Your task to perform on an android device: Do I have any events tomorrow? Image 0: 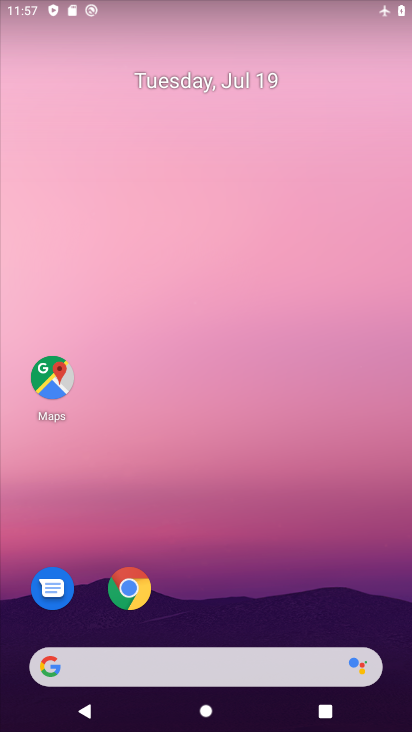
Step 0: drag from (215, 563) to (158, 262)
Your task to perform on an android device: Do I have any events tomorrow? Image 1: 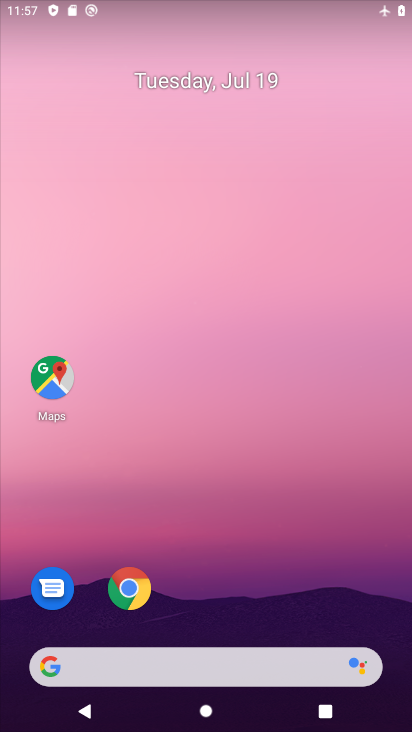
Step 1: drag from (211, 584) to (206, 230)
Your task to perform on an android device: Do I have any events tomorrow? Image 2: 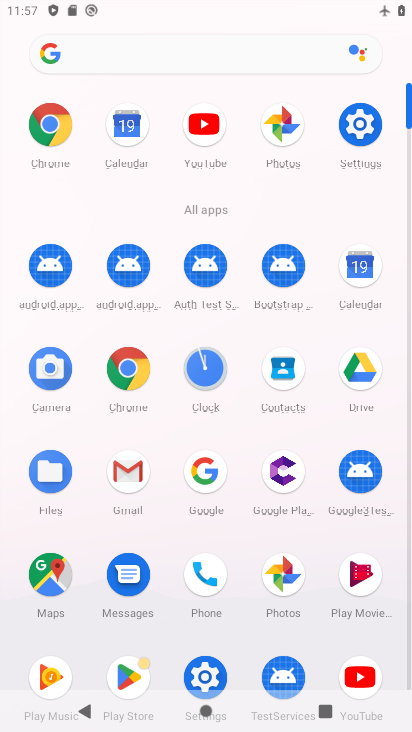
Step 2: click (351, 266)
Your task to perform on an android device: Do I have any events tomorrow? Image 3: 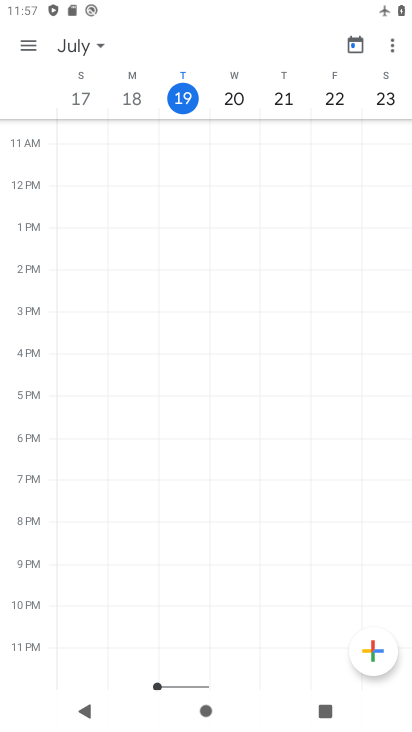
Step 3: click (287, 91)
Your task to perform on an android device: Do I have any events tomorrow? Image 4: 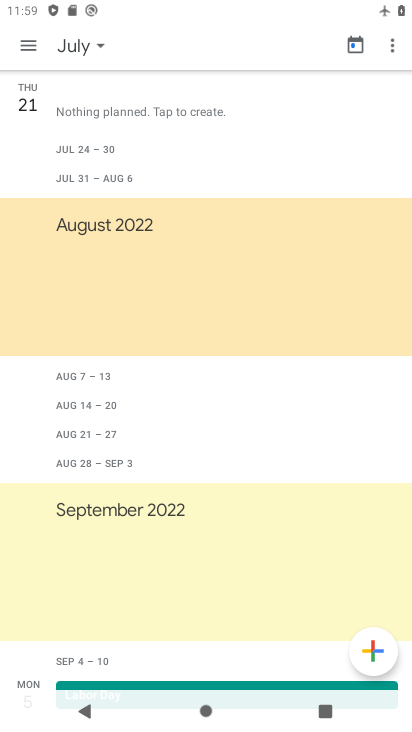
Step 4: task complete